Your task to perform on an android device: see creations saved in the google photos Image 0: 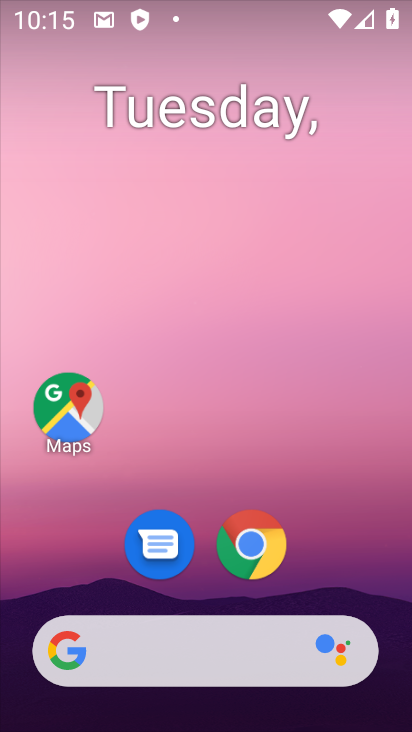
Step 0: drag from (376, 582) to (245, 66)
Your task to perform on an android device: see creations saved in the google photos Image 1: 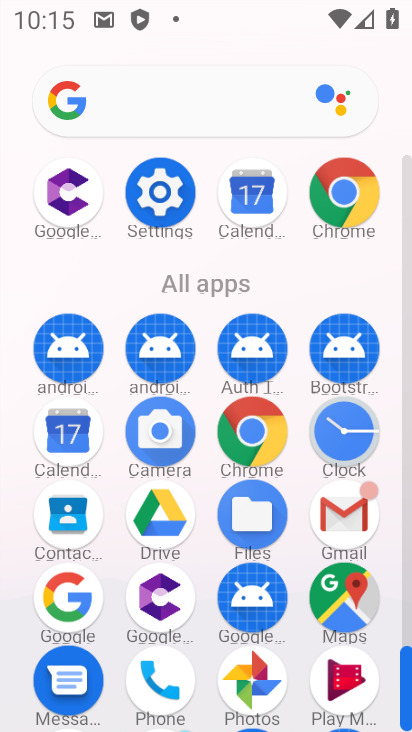
Step 1: click (251, 678)
Your task to perform on an android device: see creations saved in the google photos Image 2: 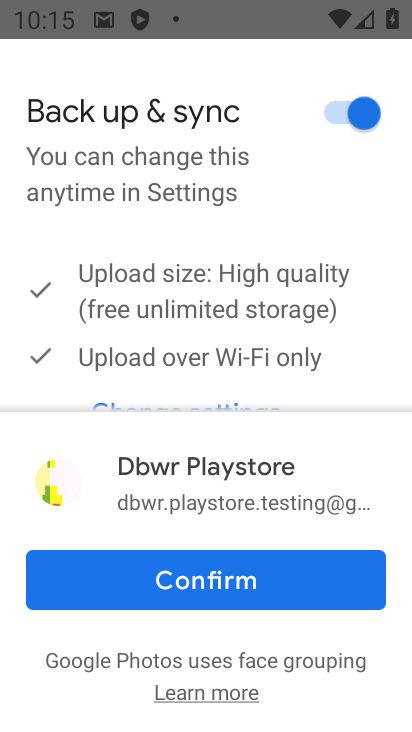
Step 2: click (315, 594)
Your task to perform on an android device: see creations saved in the google photos Image 3: 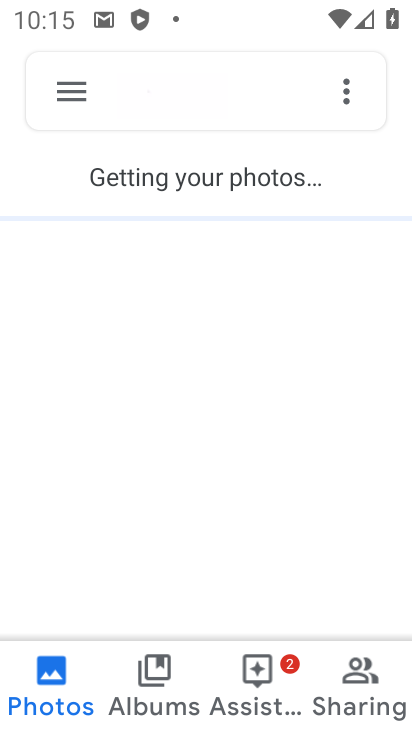
Step 3: click (186, 107)
Your task to perform on an android device: see creations saved in the google photos Image 4: 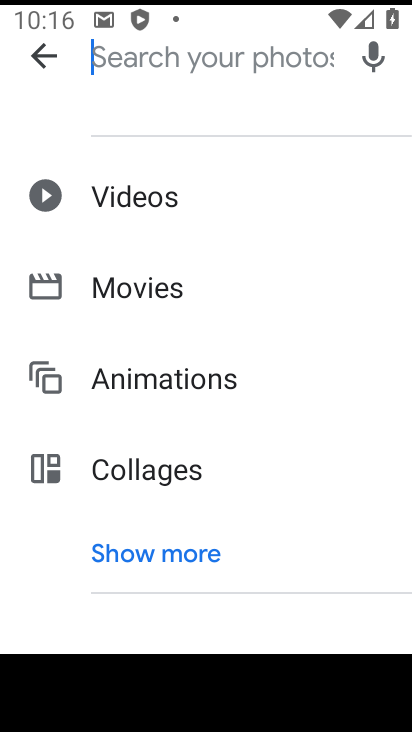
Step 4: drag from (223, 600) to (231, 93)
Your task to perform on an android device: see creations saved in the google photos Image 5: 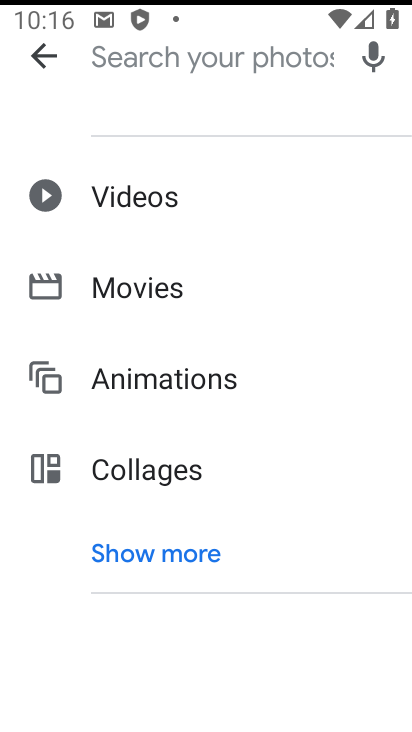
Step 5: click (188, 545)
Your task to perform on an android device: see creations saved in the google photos Image 6: 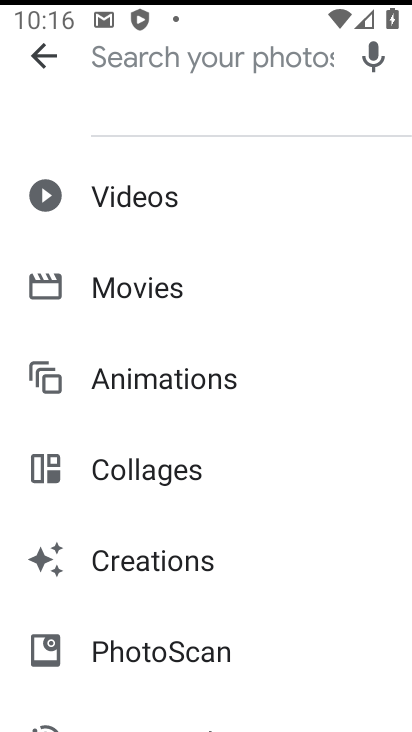
Step 6: click (188, 545)
Your task to perform on an android device: see creations saved in the google photos Image 7: 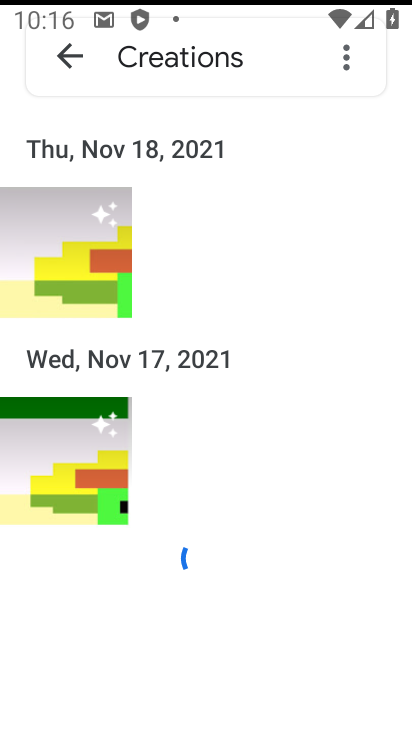
Step 7: task complete